Your task to perform on an android device: open sync settings in chrome Image 0: 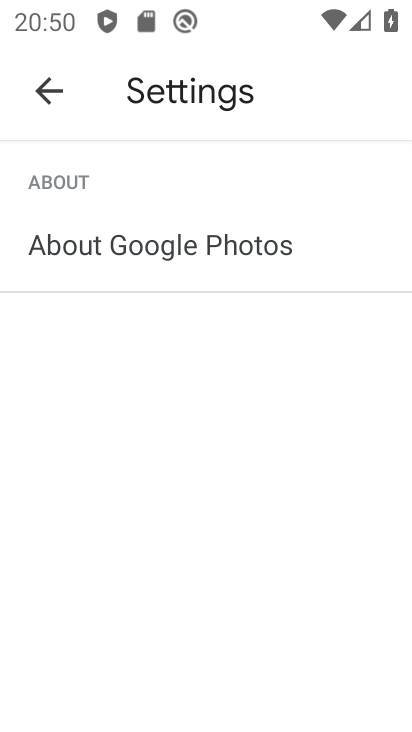
Step 0: press home button
Your task to perform on an android device: open sync settings in chrome Image 1: 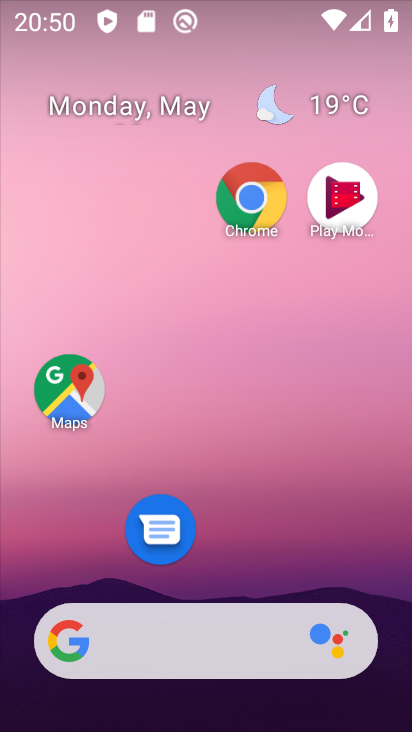
Step 1: click (250, 191)
Your task to perform on an android device: open sync settings in chrome Image 2: 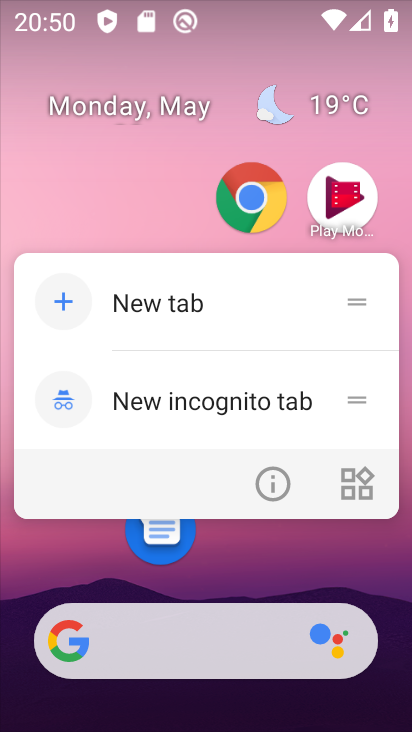
Step 2: click (261, 205)
Your task to perform on an android device: open sync settings in chrome Image 3: 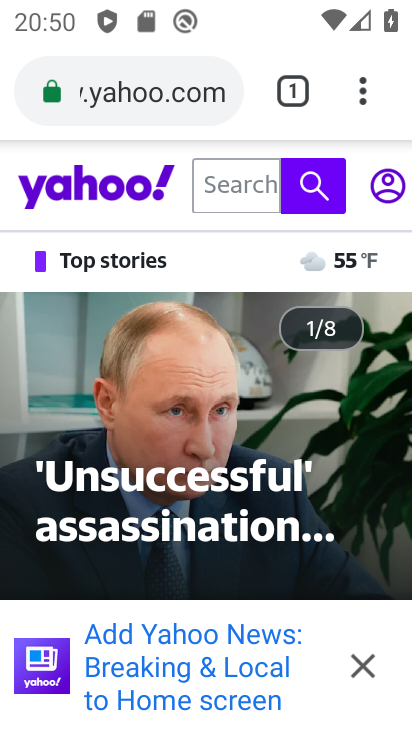
Step 3: click (366, 95)
Your task to perform on an android device: open sync settings in chrome Image 4: 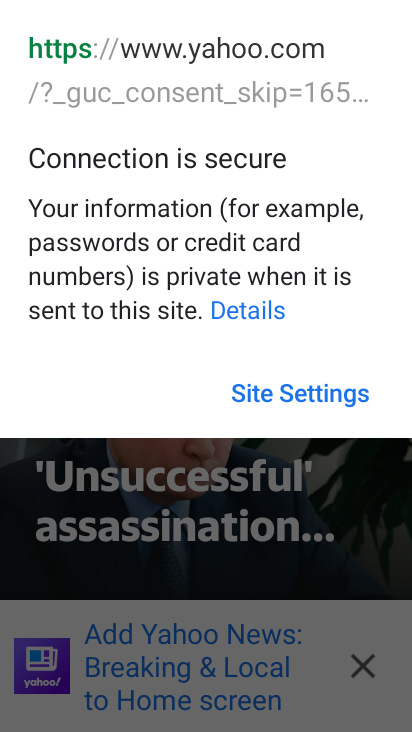
Step 4: click (198, 466)
Your task to perform on an android device: open sync settings in chrome Image 5: 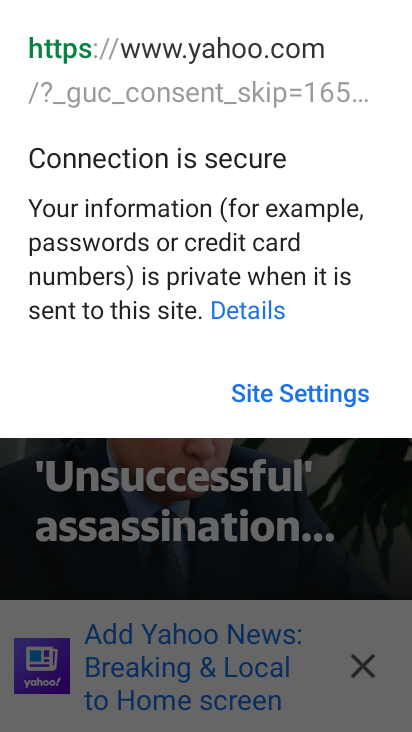
Step 5: click (242, 540)
Your task to perform on an android device: open sync settings in chrome Image 6: 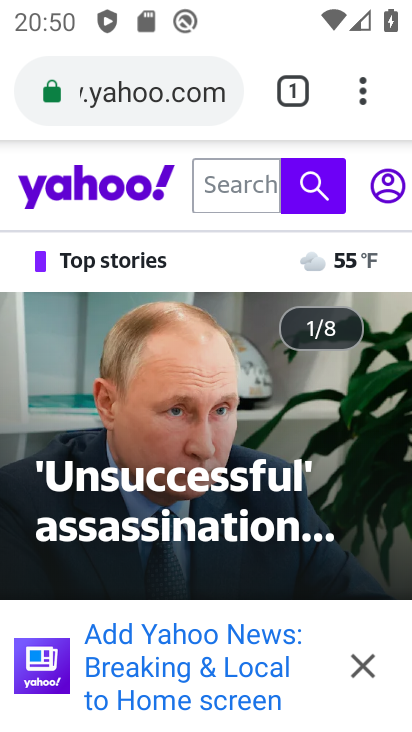
Step 6: click (367, 72)
Your task to perform on an android device: open sync settings in chrome Image 7: 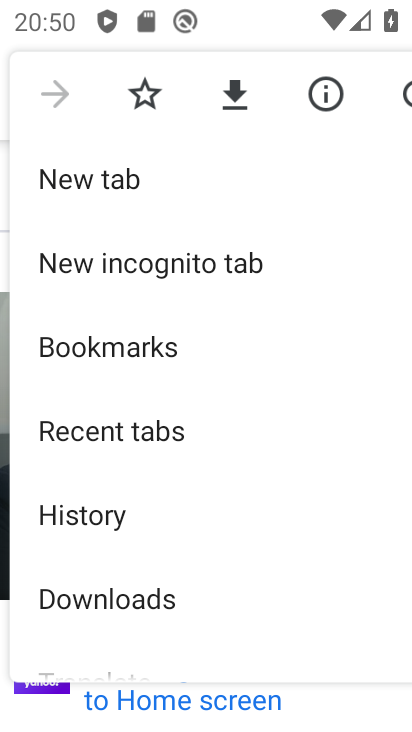
Step 7: drag from (150, 560) to (169, 213)
Your task to perform on an android device: open sync settings in chrome Image 8: 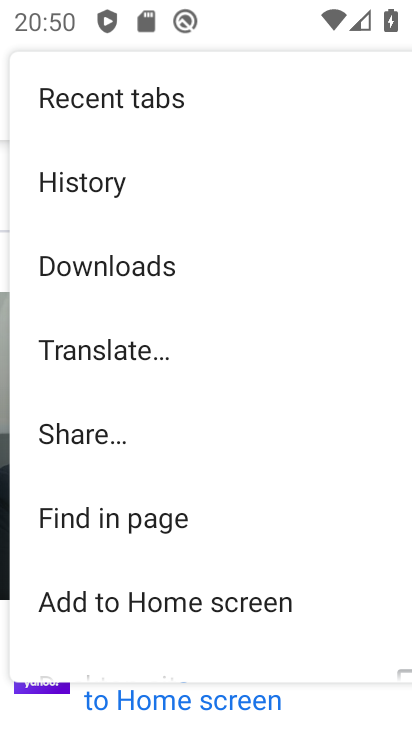
Step 8: drag from (145, 604) to (170, 299)
Your task to perform on an android device: open sync settings in chrome Image 9: 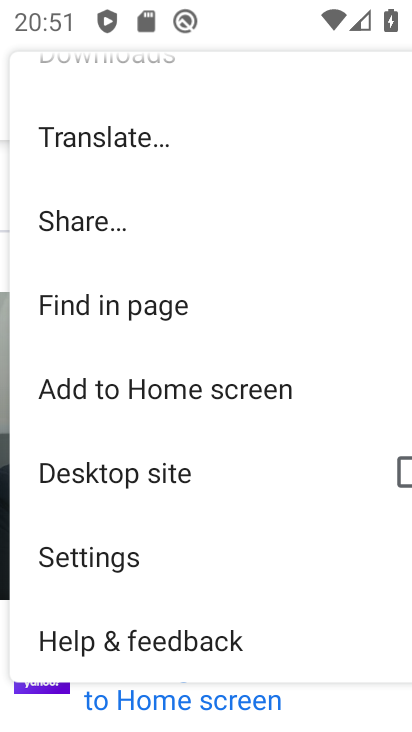
Step 9: click (87, 565)
Your task to perform on an android device: open sync settings in chrome Image 10: 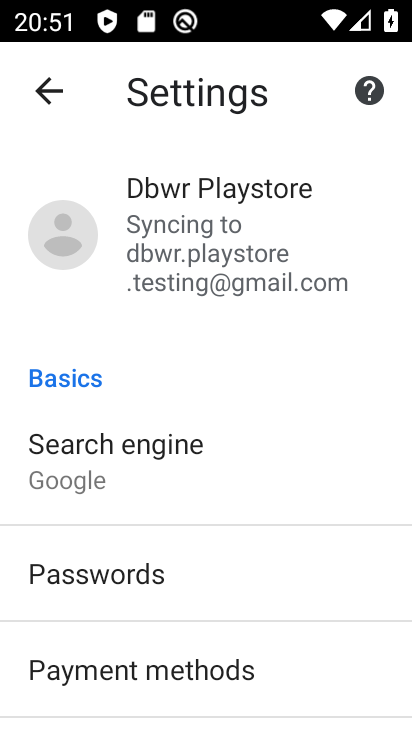
Step 10: click (218, 245)
Your task to perform on an android device: open sync settings in chrome Image 11: 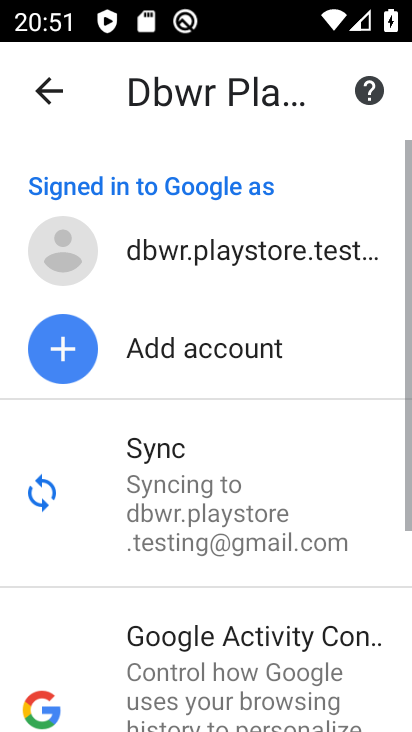
Step 11: click (144, 485)
Your task to perform on an android device: open sync settings in chrome Image 12: 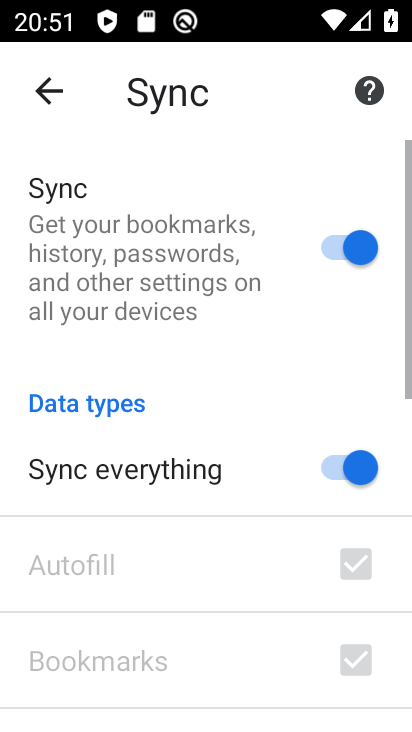
Step 12: task complete